Your task to perform on an android device: install app "Spotify: Music and Podcasts" Image 0: 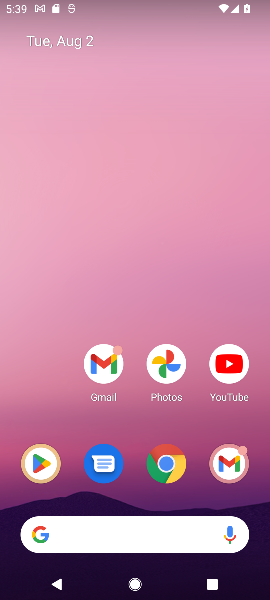
Step 0: press home button
Your task to perform on an android device: install app "Spotify: Music and Podcasts" Image 1: 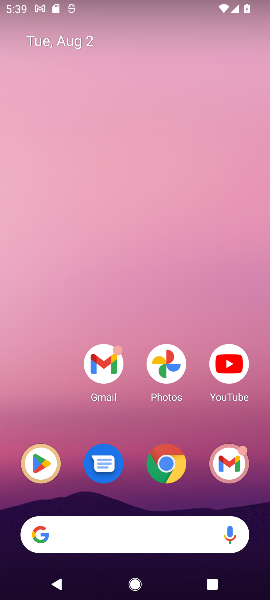
Step 1: click (39, 464)
Your task to perform on an android device: install app "Spotify: Music and Podcasts" Image 2: 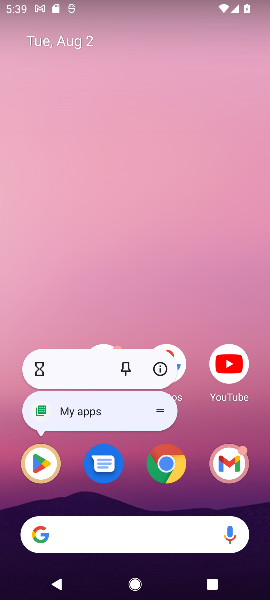
Step 2: click (39, 464)
Your task to perform on an android device: install app "Spotify: Music and Podcasts" Image 3: 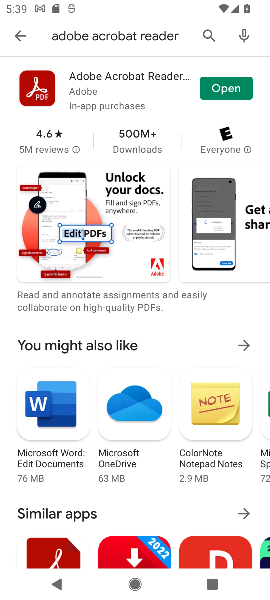
Step 3: click (39, 464)
Your task to perform on an android device: install app "Spotify: Music and Podcasts" Image 4: 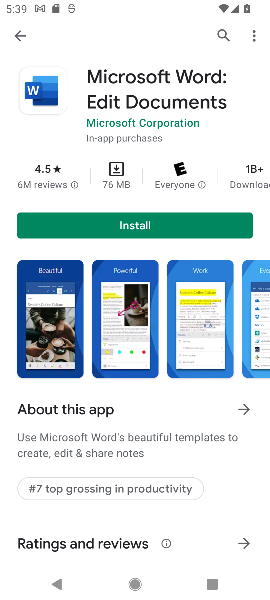
Step 4: click (226, 39)
Your task to perform on an android device: install app "Spotify: Music and Podcasts" Image 5: 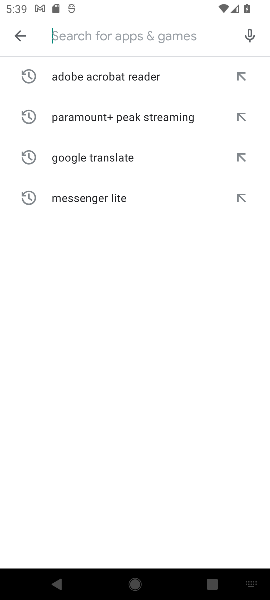
Step 5: type "Spotify: Music and Podcasts"
Your task to perform on an android device: install app "Spotify: Music and Podcasts" Image 6: 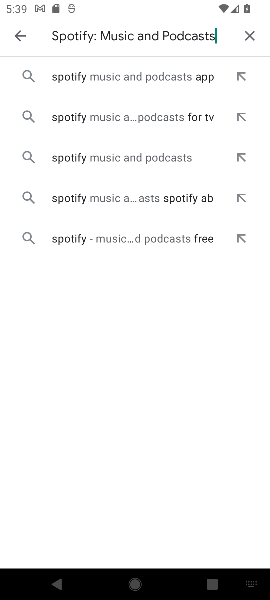
Step 6: click (116, 77)
Your task to perform on an android device: install app "Spotify: Music and Podcasts" Image 7: 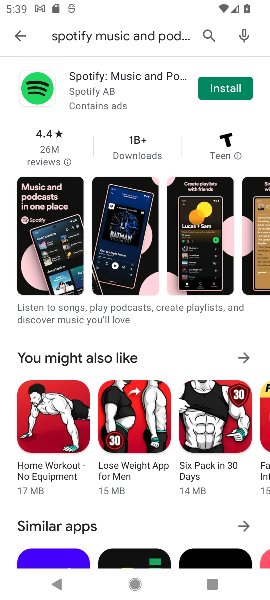
Step 7: click (227, 87)
Your task to perform on an android device: install app "Spotify: Music and Podcasts" Image 8: 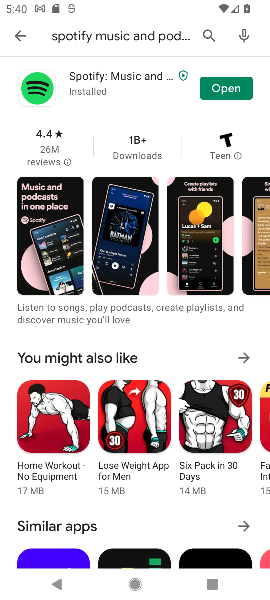
Step 8: task complete